Your task to perform on an android device: open app "Pandora - Music & Podcasts" (install if not already installed) and go to login screen Image 0: 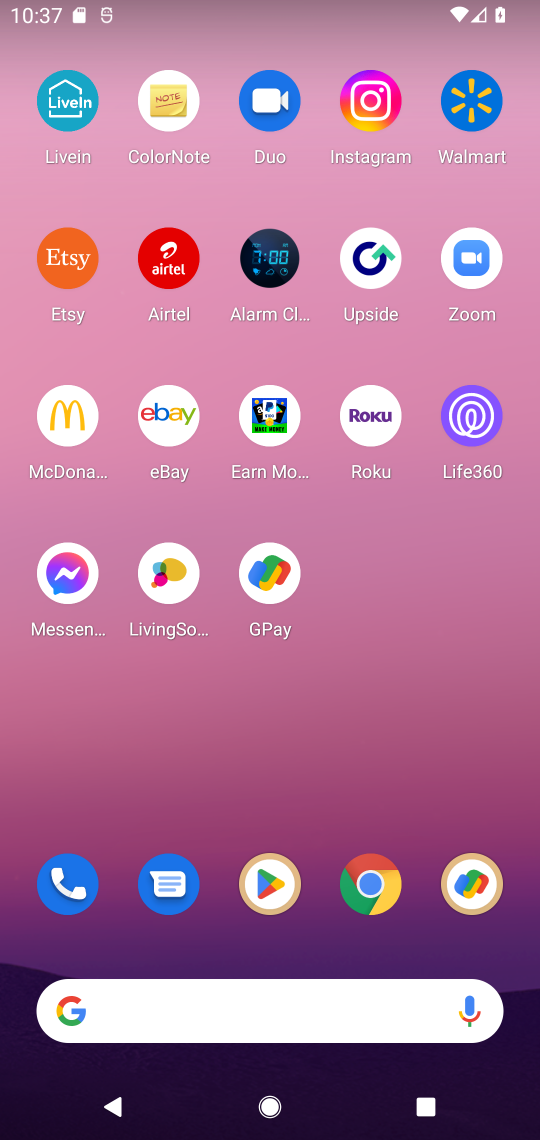
Step 0: click (267, 901)
Your task to perform on an android device: open app "Pandora - Music & Podcasts" (install if not already installed) and go to login screen Image 1: 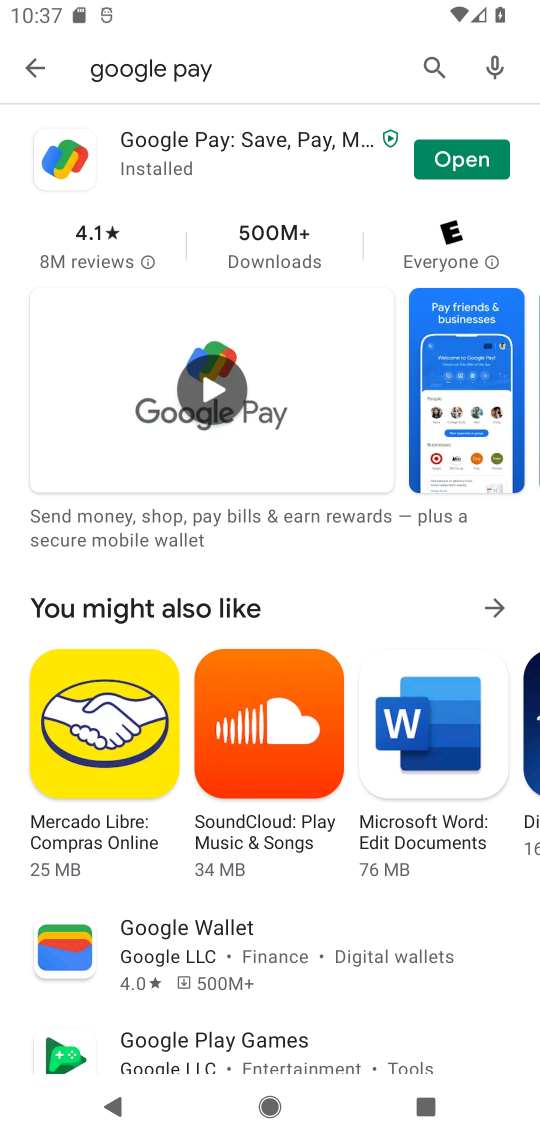
Step 1: click (420, 65)
Your task to perform on an android device: open app "Pandora - Music & Podcasts" (install if not already installed) and go to login screen Image 2: 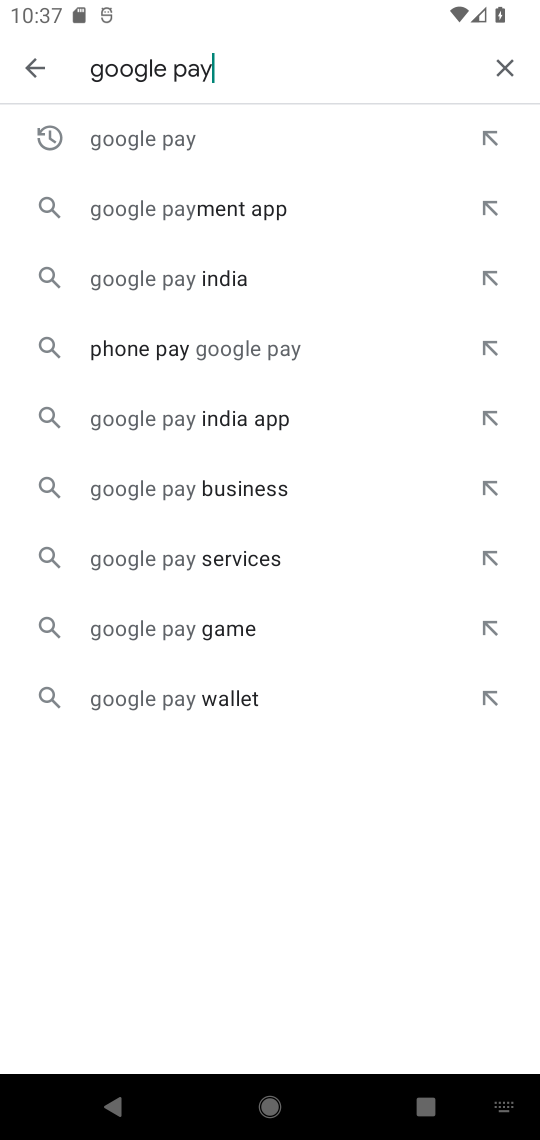
Step 2: click (508, 67)
Your task to perform on an android device: open app "Pandora - Music & Podcasts" (install if not already installed) and go to login screen Image 3: 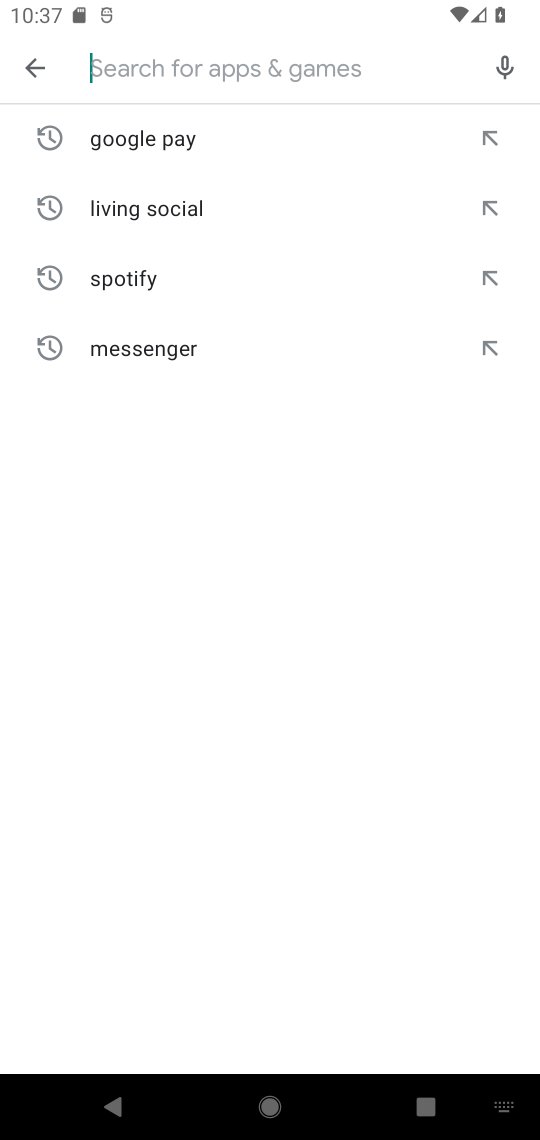
Step 3: type "pandora"
Your task to perform on an android device: open app "Pandora - Music & Podcasts" (install if not already installed) and go to login screen Image 4: 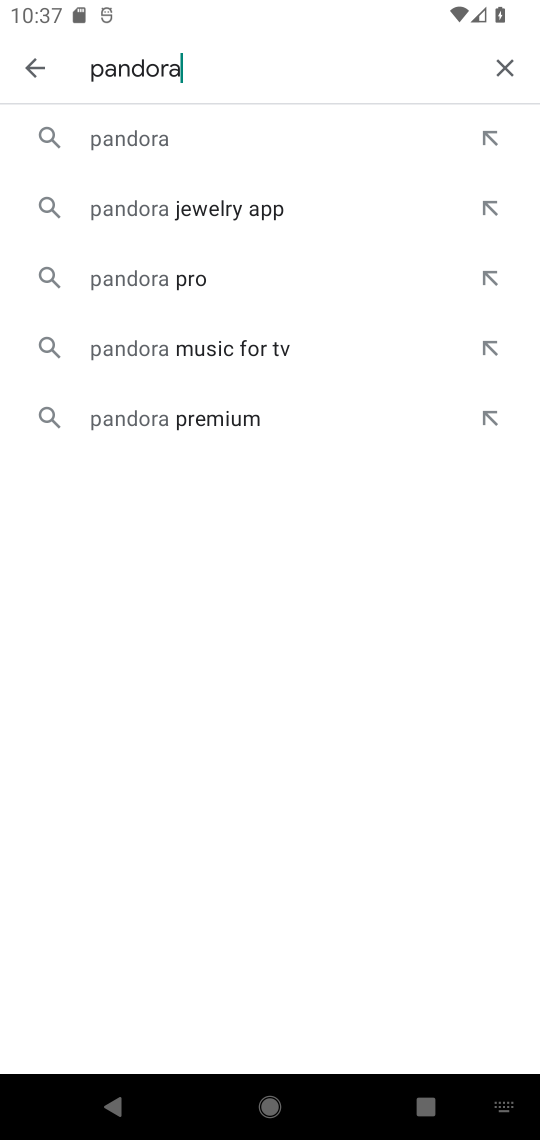
Step 4: click (220, 158)
Your task to perform on an android device: open app "Pandora - Music & Podcasts" (install if not already installed) and go to login screen Image 5: 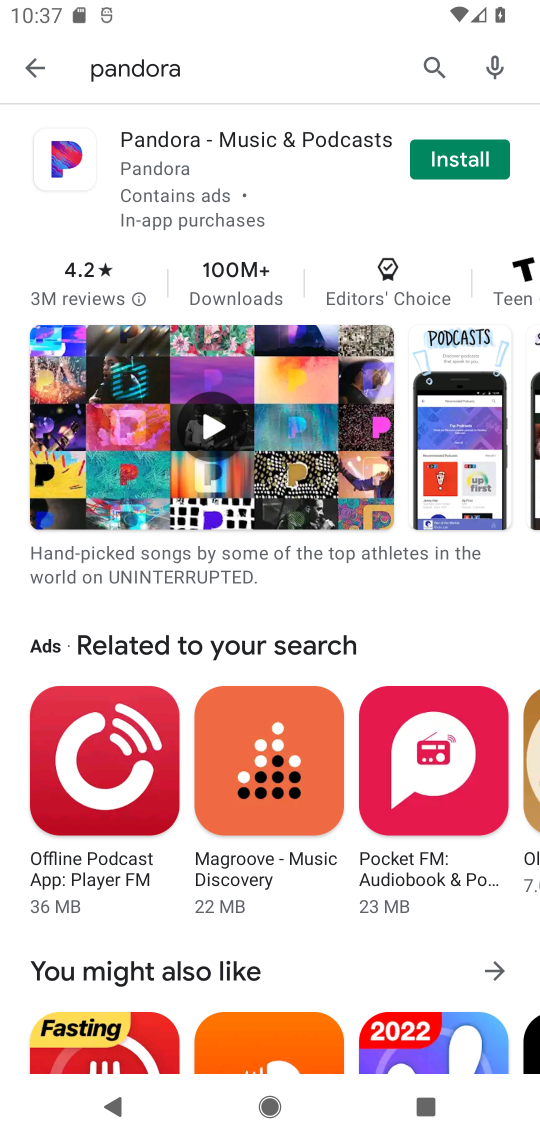
Step 5: click (478, 157)
Your task to perform on an android device: open app "Pandora - Music & Podcasts" (install if not already installed) and go to login screen Image 6: 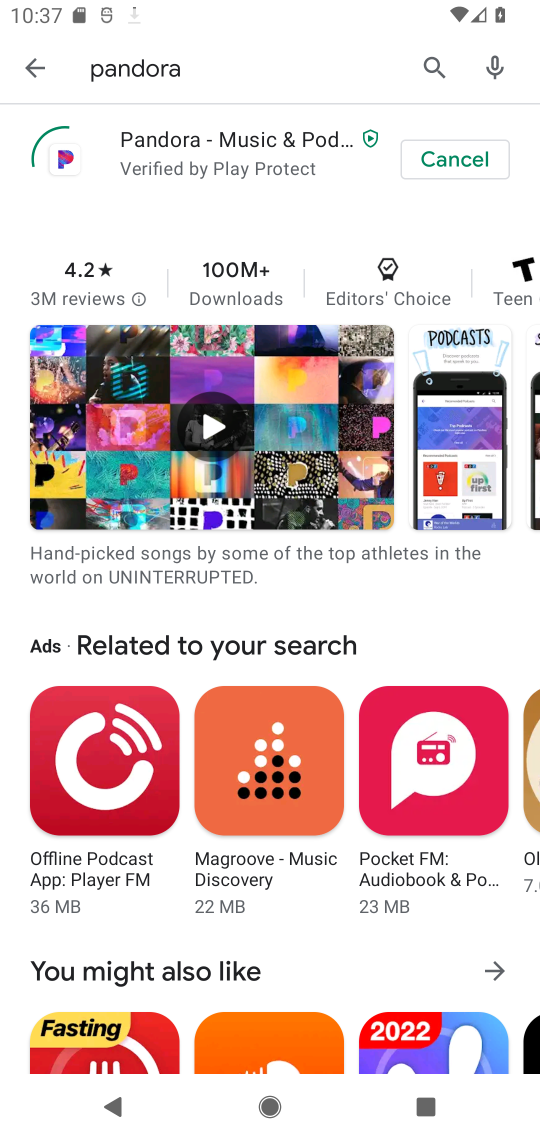
Step 6: task complete